Your task to perform on an android device: Play the last video I watched on Youtube Image 0: 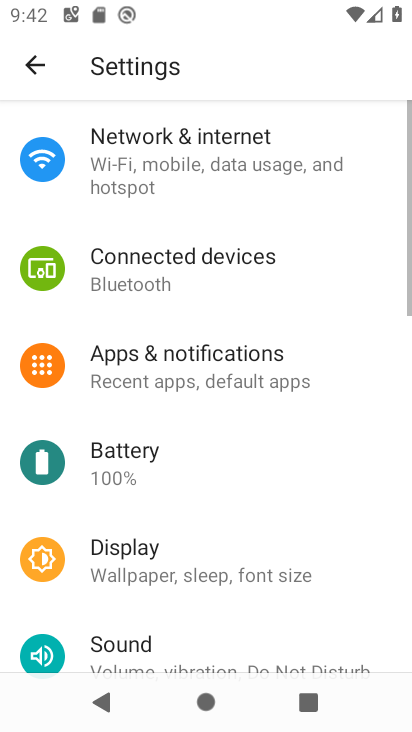
Step 0: drag from (211, 560) to (305, 262)
Your task to perform on an android device: Play the last video I watched on Youtube Image 1: 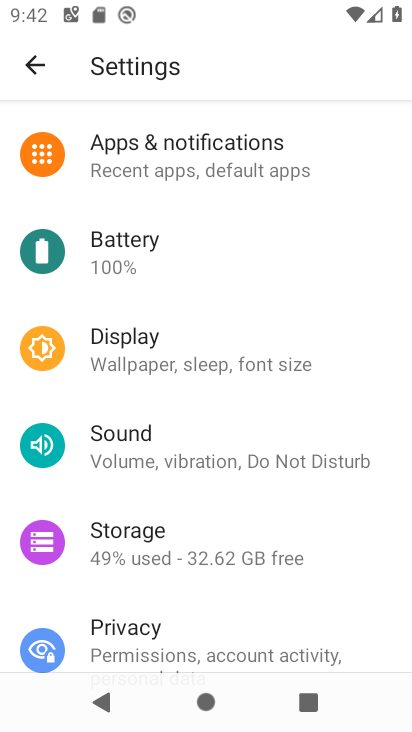
Step 1: press home button
Your task to perform on an android device: Play the last video I watched on Youtube Image 2: 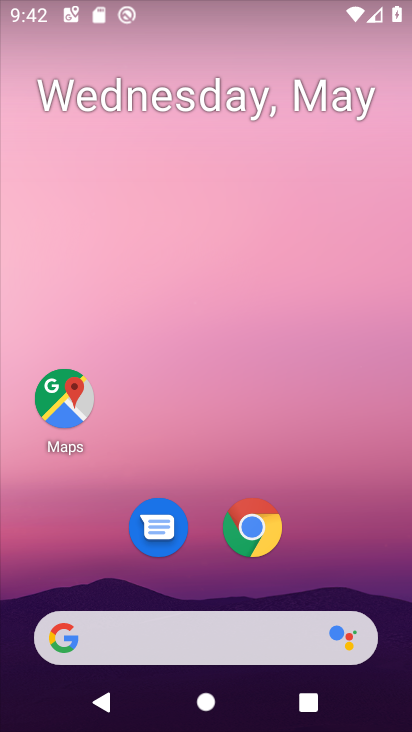
Step 2: drag from (287, 566) to (291, 48)
Your task to perform on an android device: Play the last video I watched on Youtube Image 3: 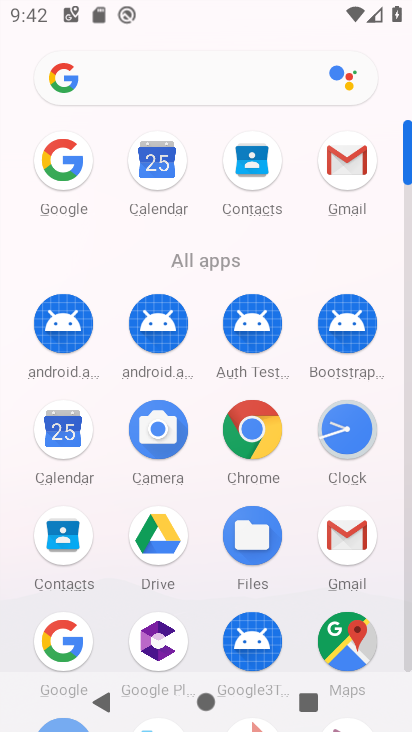
Step 3: drag from (294, 528) to (311, 123)
Your task to perform on an android device: Play the last video I watched on Youtube Image 4: 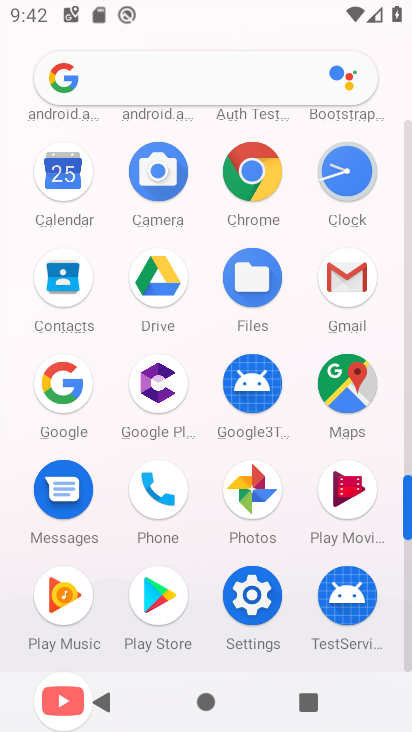
Step 4: drag from (107, 608) to (182, 284)
Your task to perform on an android device: Play the last video I watched on Youtube Image 5: 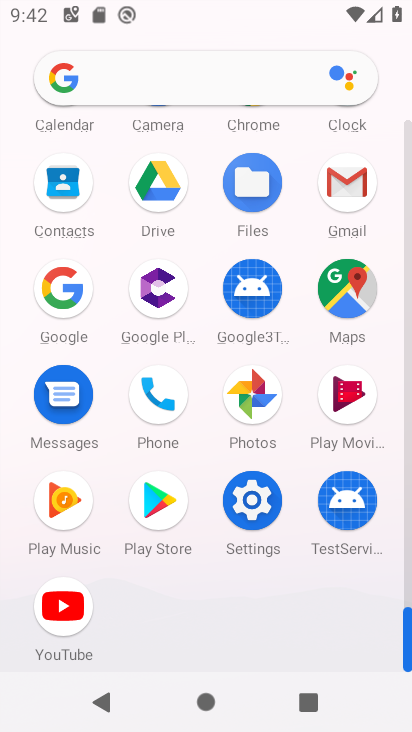
Step 5: click (65, 605)
Your task to perform on an android device: Play the last video I watched on Youtube Image 6: 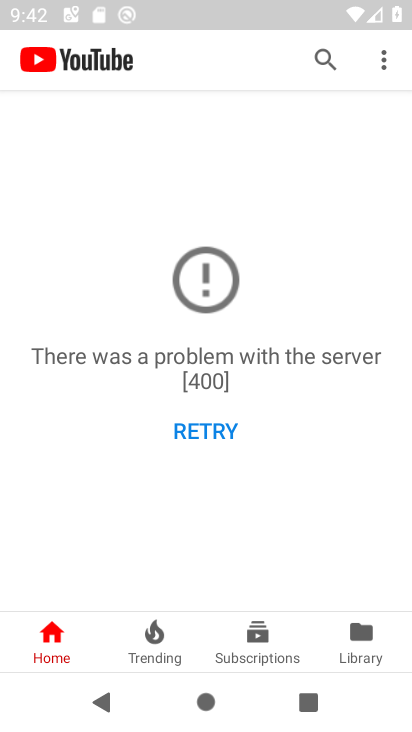
Step 6: click (320, 59)
Your task to perform on an android device: Play the last video I watched on Youtube Image 7: 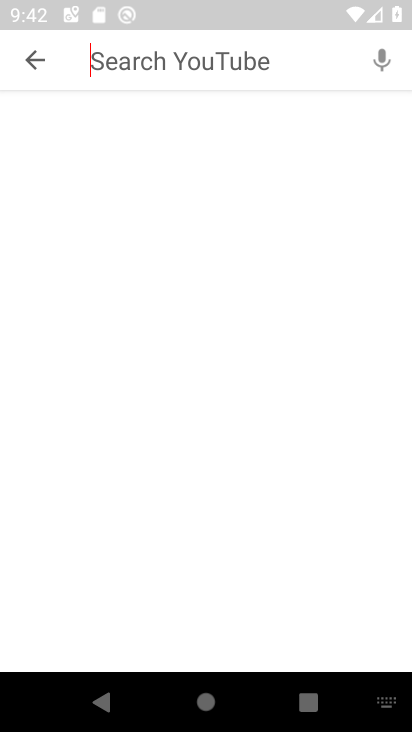
Step 7: task complete